Your task to perform on an android device: Open Google Maps and go to "Timeline" Image 0: 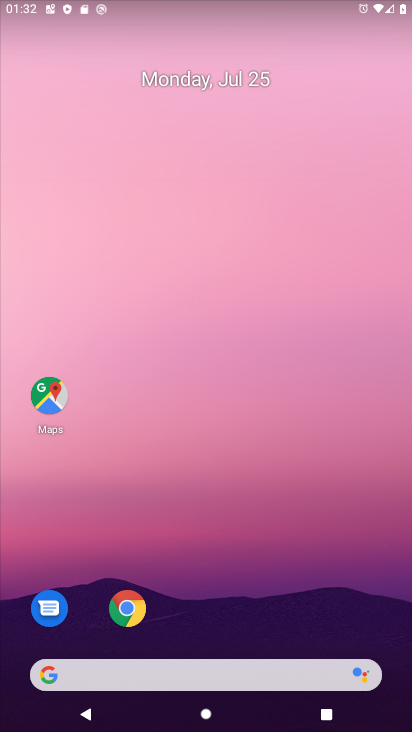
Step 0: click (40, 388)
Your task to perform on an android device: Open Google Maps and go to "Timeline" Image 1: 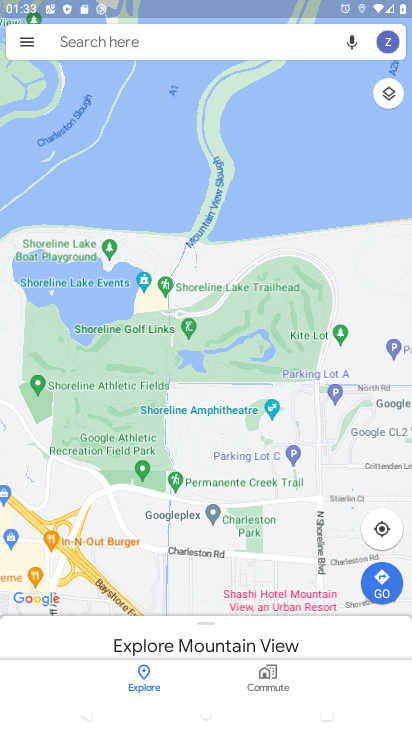
Step 1: click (30, 46)
Your task to perform on an android device: Open Google Maps and go to "Timeline" Image 2: 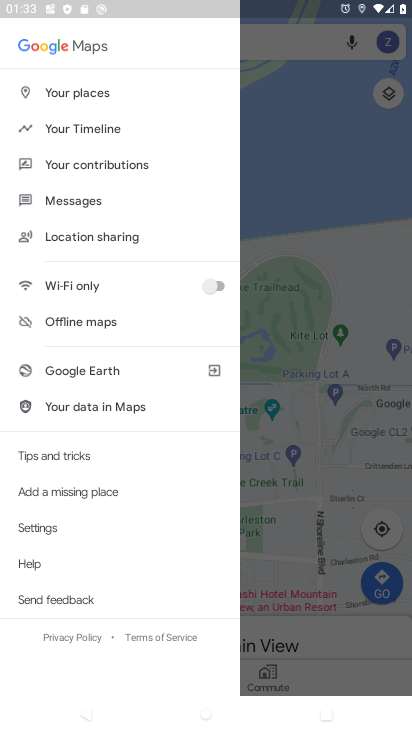
Step 2: click (78, 125)
Your task to perform on an android device: Open Google Maps and go to "Timeline" Image 3: 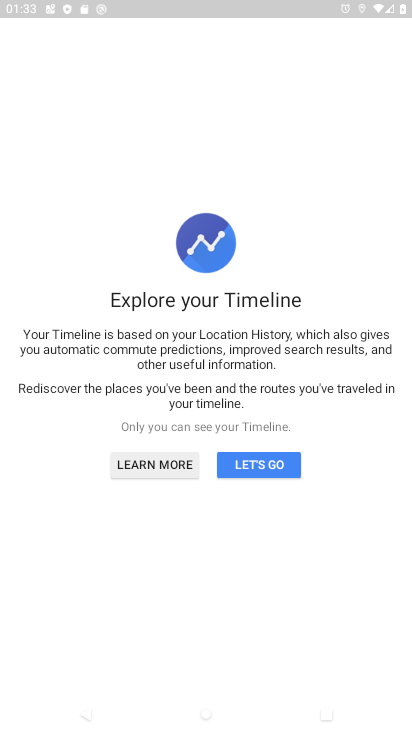
Step 3: click (255, 450)
Your task to perform on an android device: Open Google Maps and go to "Timeline" Image 4: 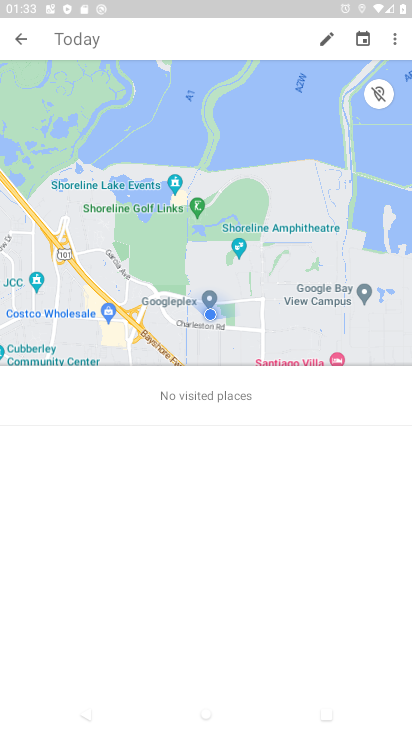
Step 4: click (21, 38)
Your task to perform on an android device: Open Google Maps and go to "Timeline" Image 5: 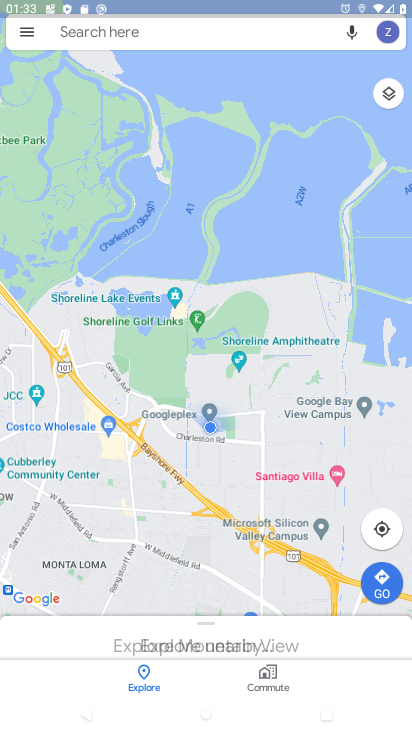
Step 5: task complete